Your task to perform on an android device: change alarm snooze length Image 0: 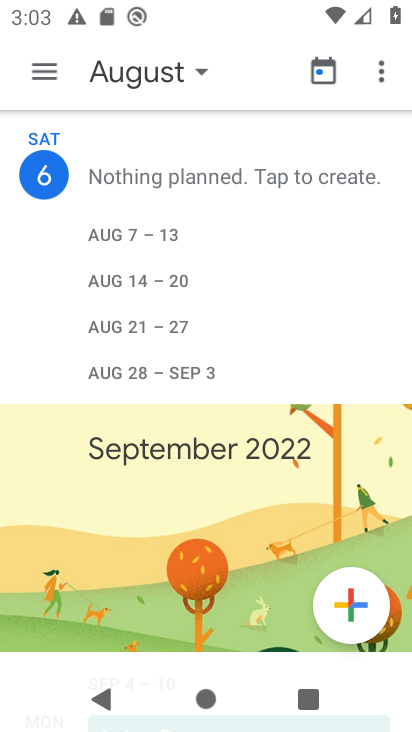
Step 0: press home button
Your task to perform on an android device: change alarm snooze length Image 1: 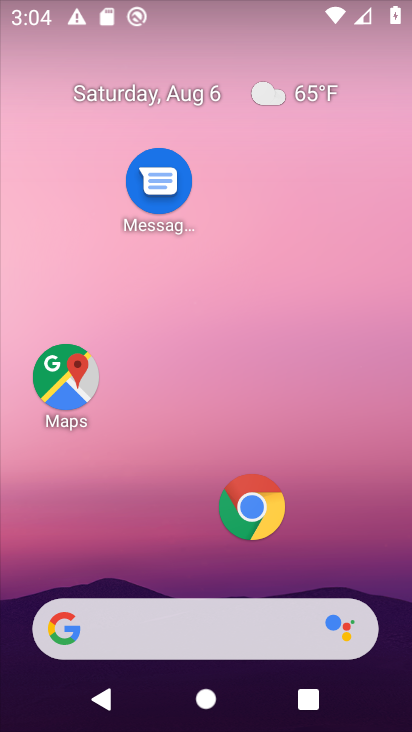
Step 1: drag from (184, 552) to (204, 138)
Your task to perform on an android device: change alarm snooze length Image 2: 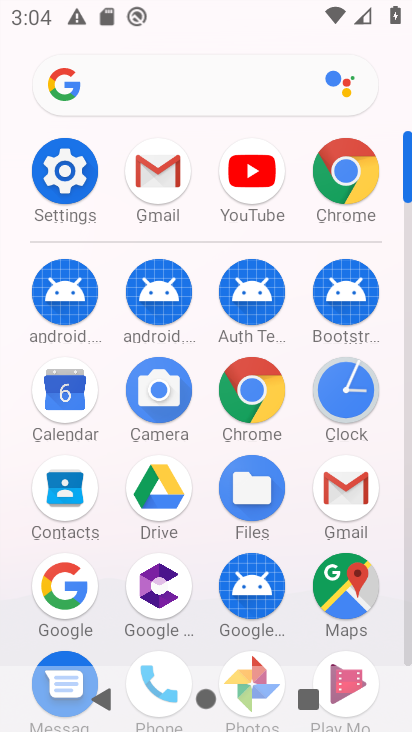
Step 2: click (352, 403)
Your task to perform on an android device: change alarm snooze length Image 3: 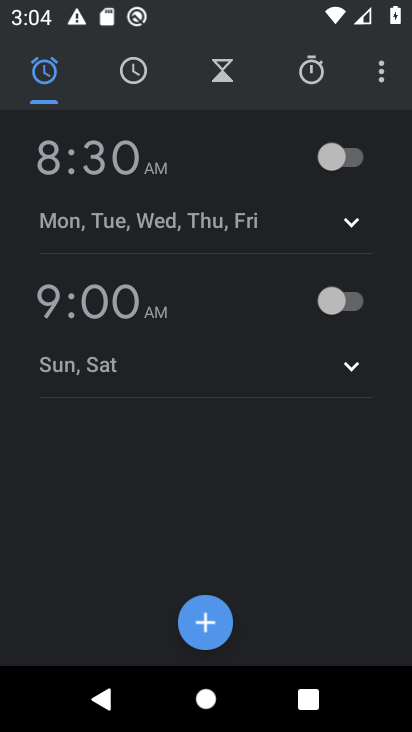
Step 3: click (374, 70)
Your task to perform on an android device: change alarm snooze length Image 4: 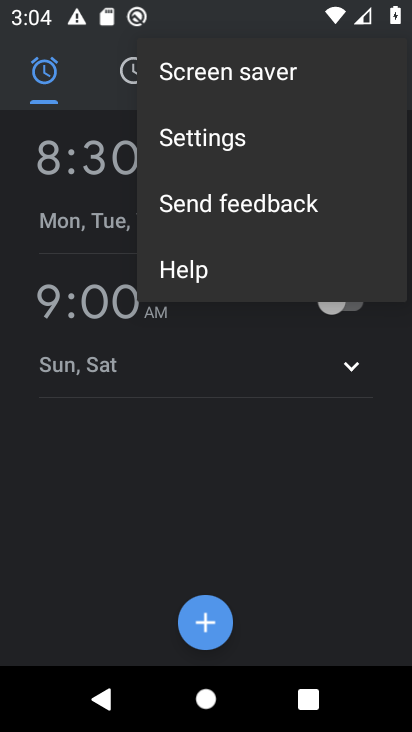
Step 4: click (218, 148)
Your task to perform on an android device: change alarm snooze length Image 5: 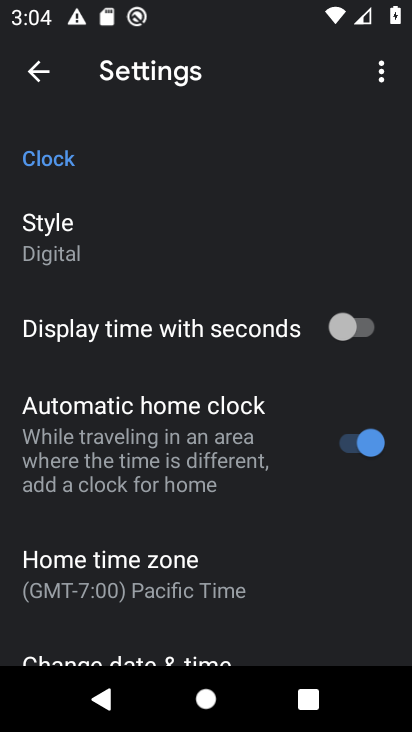
Step 5: drag from (147, 509) to (175, 197)
Your task to perform on an android device: change alarm snooze length Image 6: 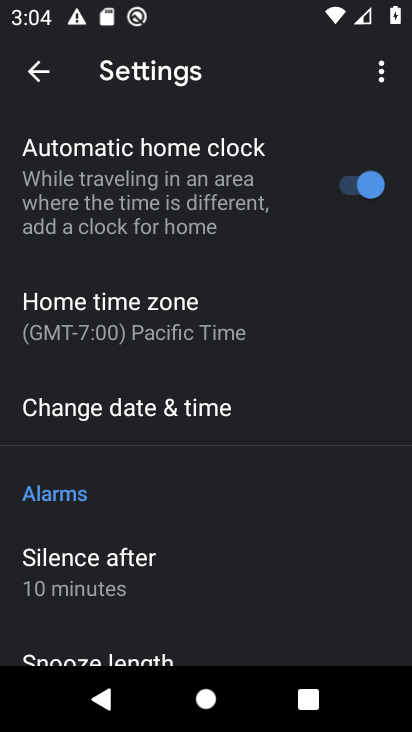
Step 6: drag from (204, 539) to (233, 309)
Your task to perform on an android device: change alarm snooze length Image 7: 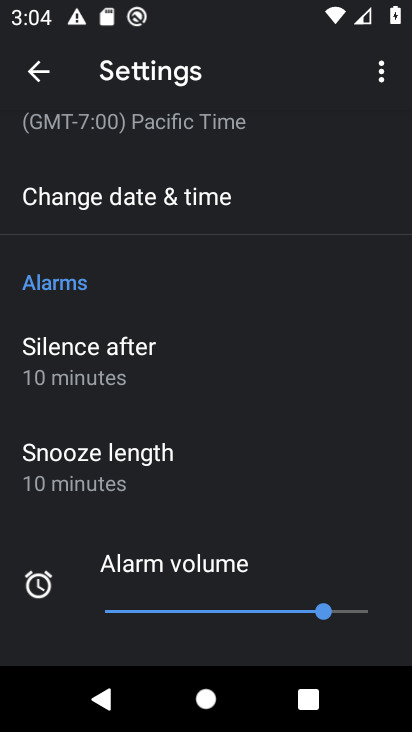
Step 7: click (105, 475)
Your task to perform on an android device: change alarm snooze length Image 8: 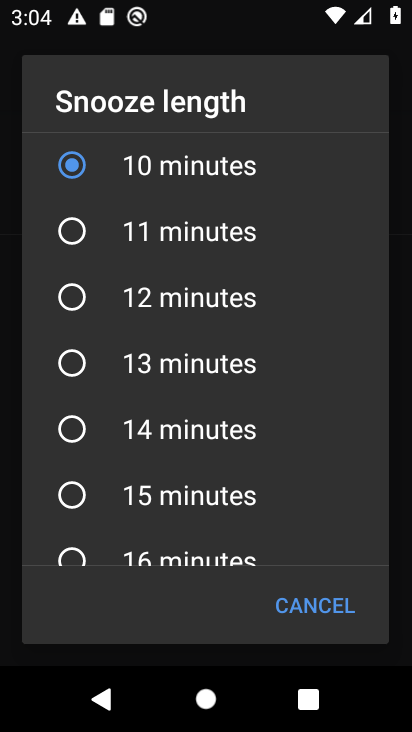
Step 8: click (77, 496)
Your task to perform on an android device: change alarm snooze length Image 9: 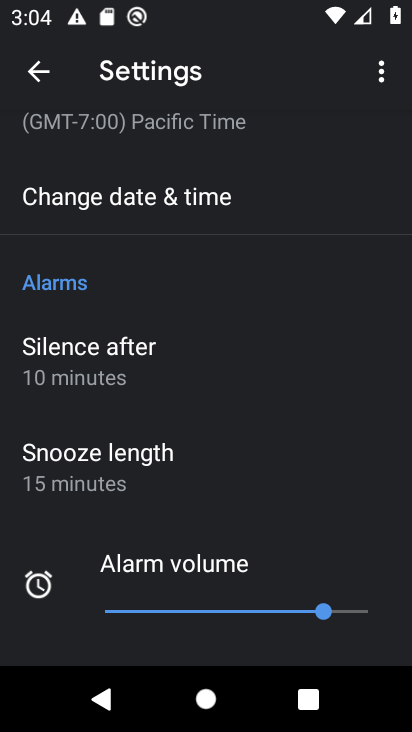
Step 9: task complete